Your task to perform on an android device: Is it going to rain today? Image 0: 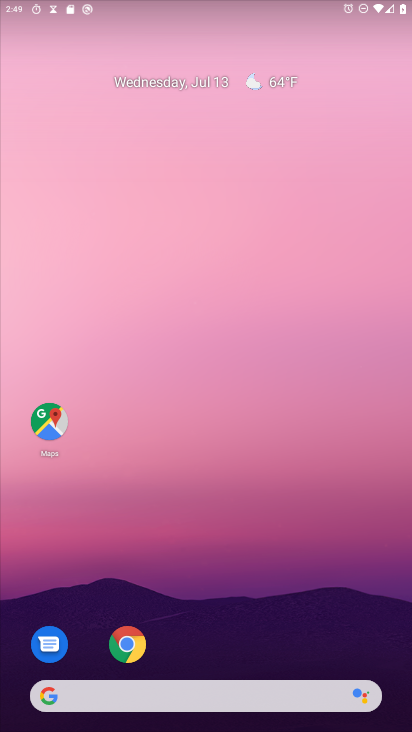
Step 0: press home button
Your task to perform on an android device: Is it going to rain today? Image 1: 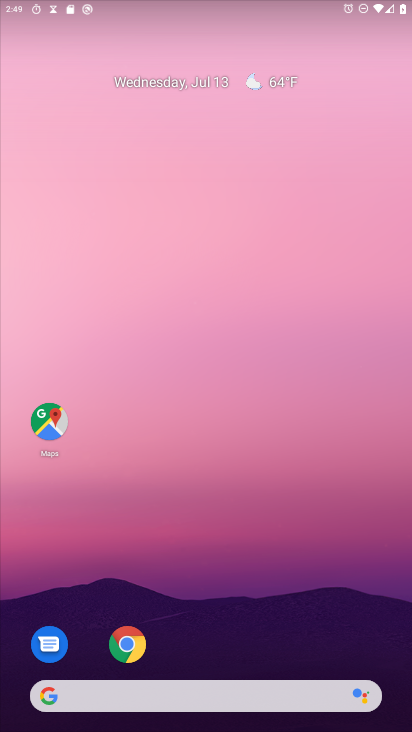
Step 1: click (123, 638)
Your task to perform on an android device: Is it going to rain today? Image 2: 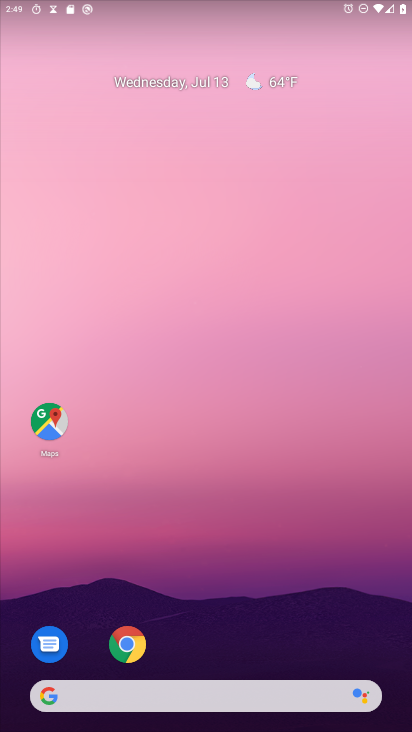
Step 2: press home button
Your task to perform on an android device: Is it going to rain today? Image 3: 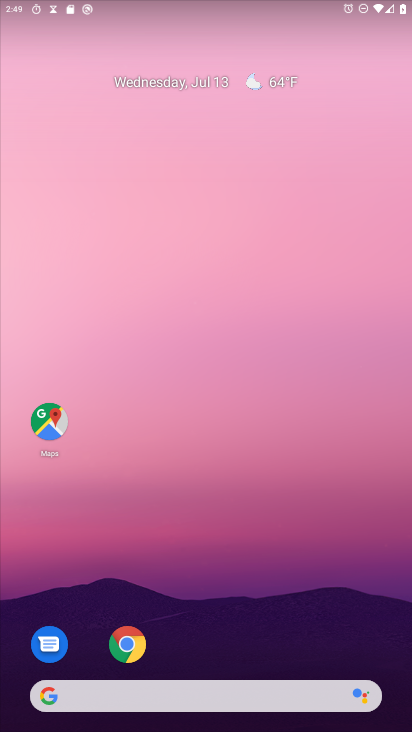
Step 3: press home button
Your task to perform on an android device: Is it going to rain today? Image 4: 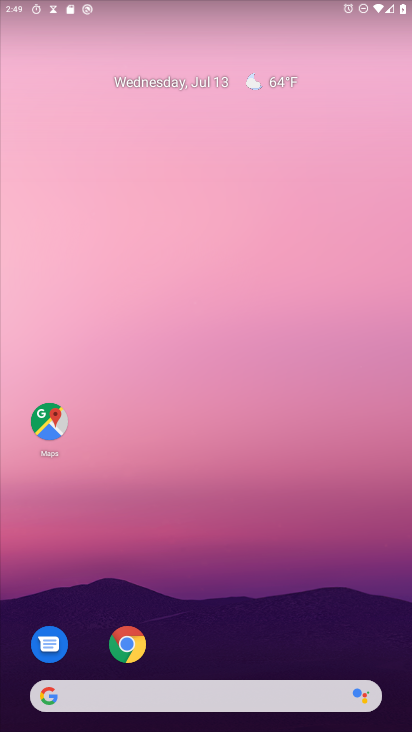
Step 4: press home button
Your task to perform on an android device: Is it going to rain today? Image 5: 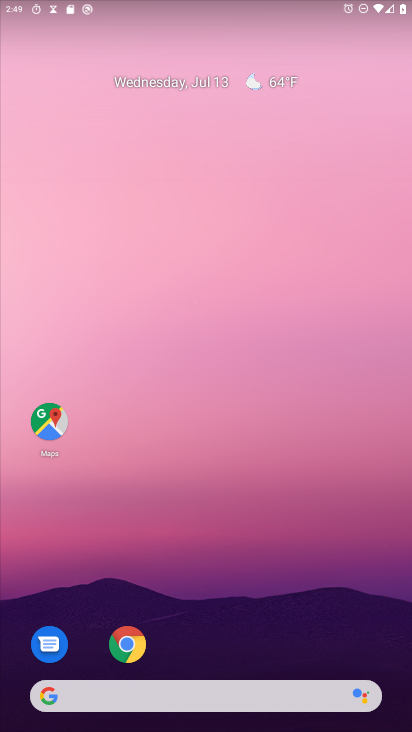
Step 5: click (201, 695)
Your task to perform on an android device: Is it going to rain today? Image 6: 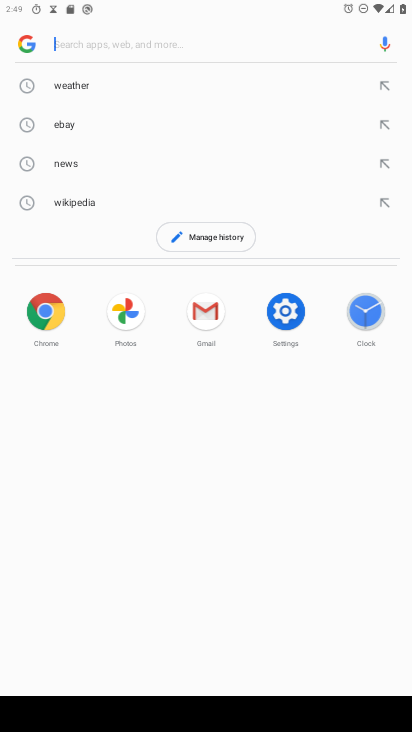
Step 6: type "Is it going to rain today?"
Your task to perform on an android device: Is it going to rain today? Image 7: 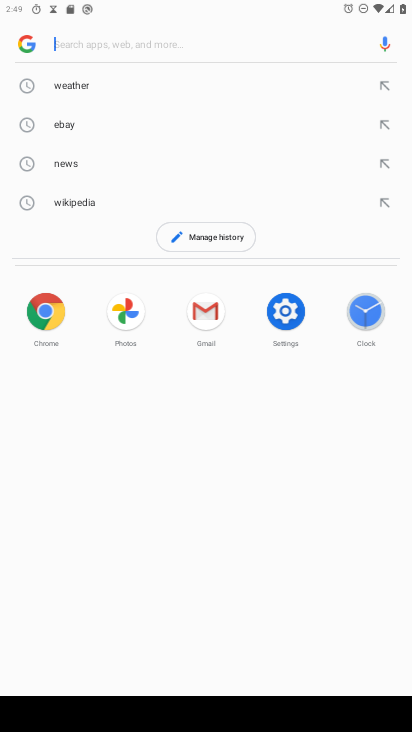
Step 7: click (129, 40)
Your task to perform on an android device: Is it going to rain today? Image 8: 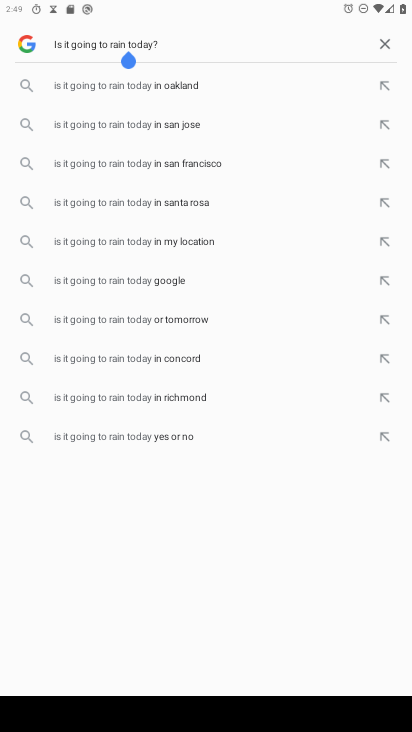
Step 8: press enter
Your task to perform on an android device: Is it going to rain today? Image 9: 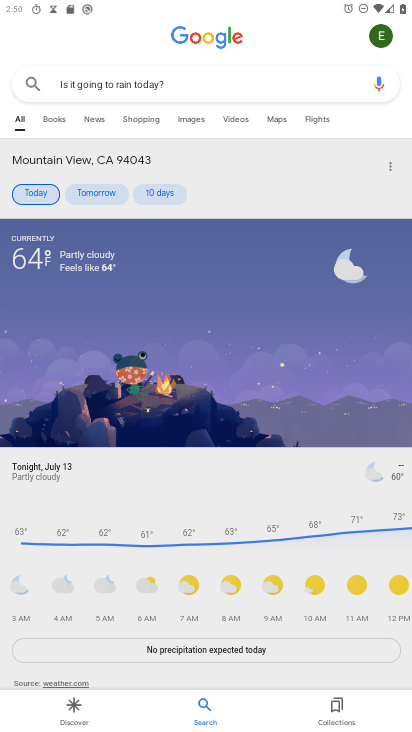
Step 9: task complete